Your task to perform on an android device: change text size in settings app Image 0: 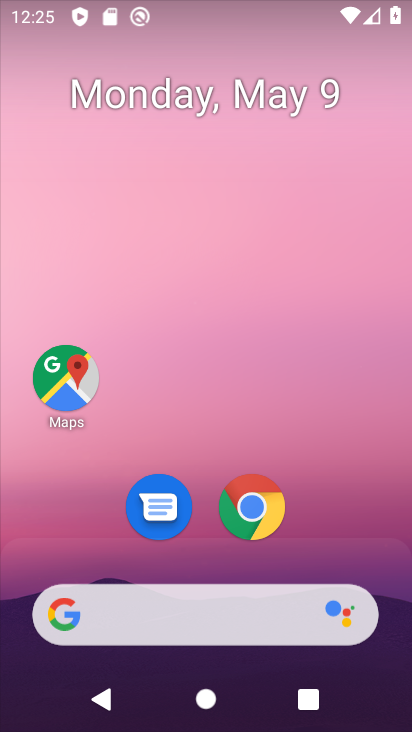
Step 0: click (179, 156)
Your task to perform on an android device: change text size in settings app Image 1: 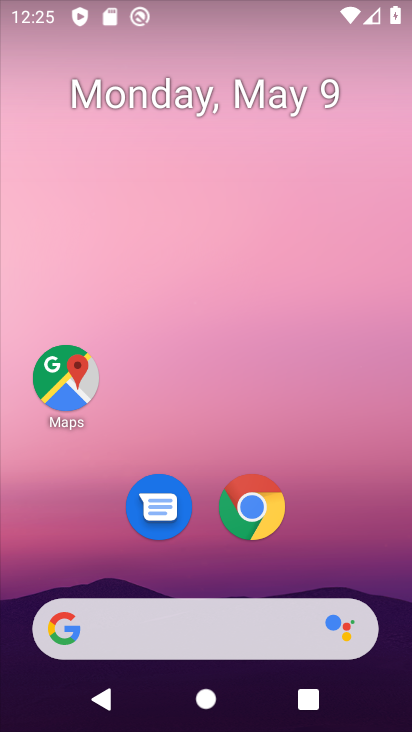
Step 1: drag from (220, 569) to (250, 83)
Your task to perform on an android device: change text size in settings app Image 2: 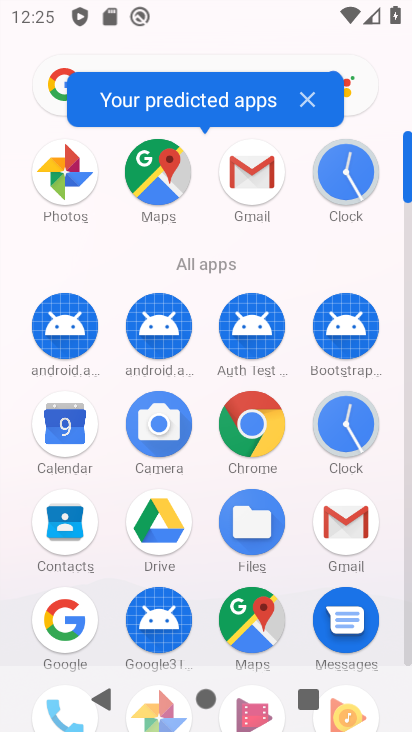
Step 2: drag from (130, 600) to (175, 125)
Your task to perform on an android device: change text size in settings app Image 3: 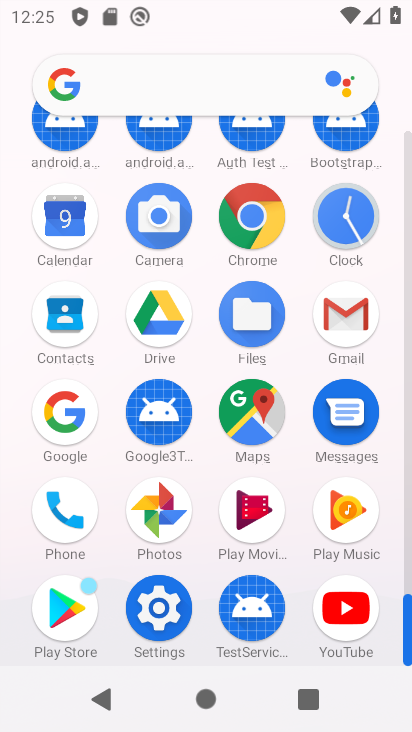
Step 3: click (156, 625)
Your task to perform on an android device: change text size in settings app Image 4: 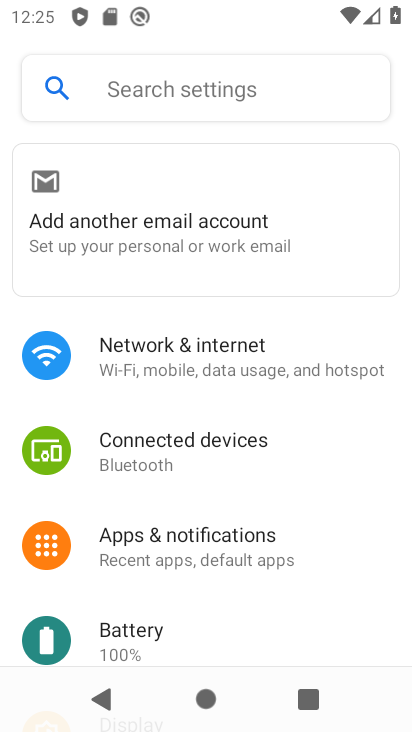
Step 4: drag from (137, 662) to (199, 294)
Your task to perform on an android device: change text size in settings app Image 5: 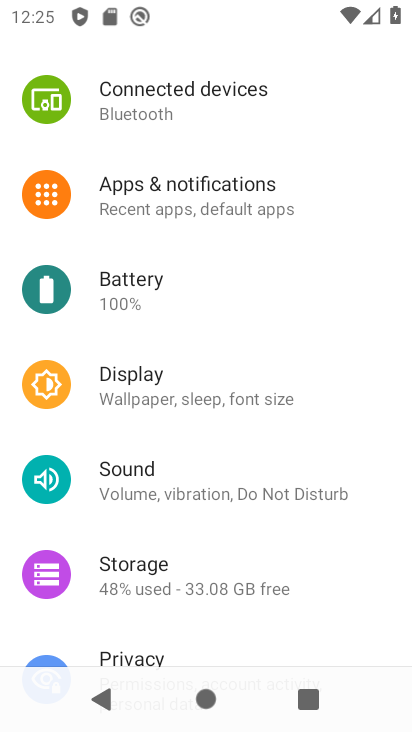
Step 5: drag from (138, 640) to (180, 289)
Your task to perform on an android device: change text size in settings app Image 6: 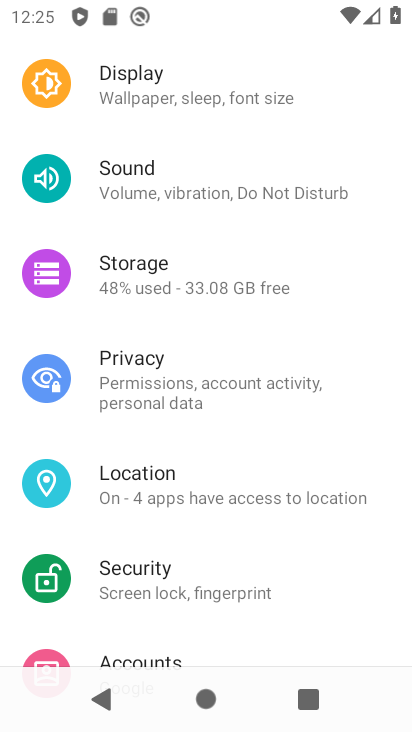
Step 6: drag from (158, 631) to (150, 341)
Your task to perform on an android device: change text size in settings app Image 7: 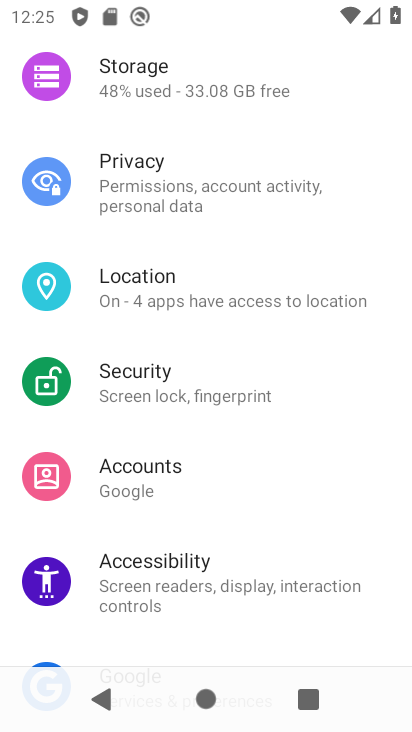
Step 7: drag from (152, 611) to (170, 334)
Your task to perform on an android device: change text size in settings app Image 8: 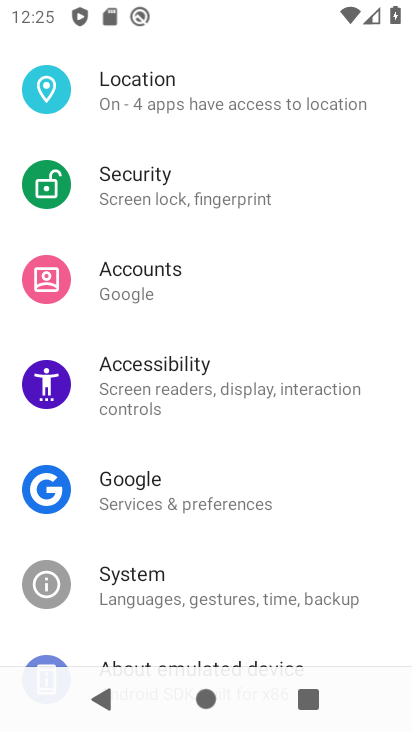
Step 8: click (139, 586)
Your task to perform on an android device: change text size in settings app Image 9: 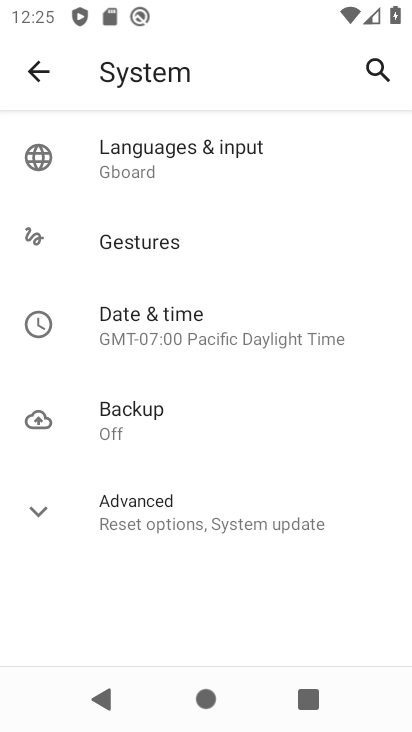
Step 9: click (24, 71)
Your task to perform on an android device: change text size in settings app Image 10: 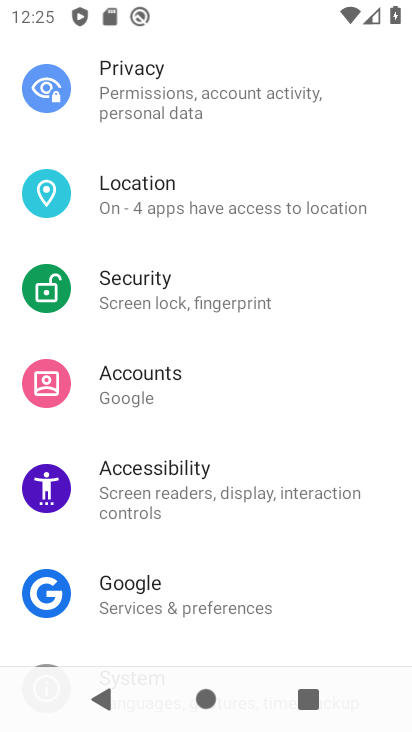
Step 10: click (152, 492)
Your task to perform on an android device: change text size in settings app Image 11: 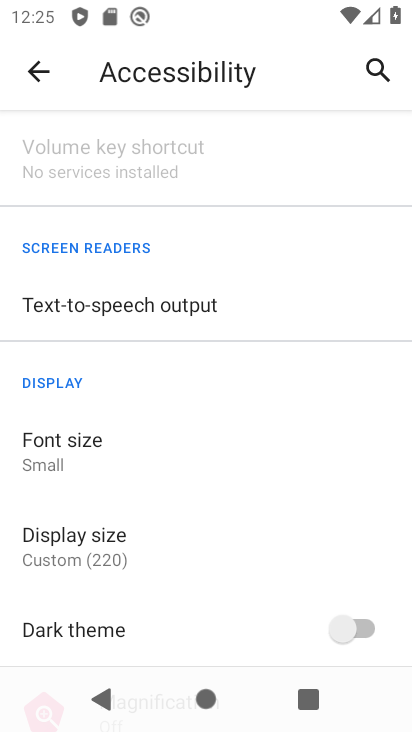
Step 11: click (68, 457)
Your task to perform on an android device: change text size in settings app Image 12: 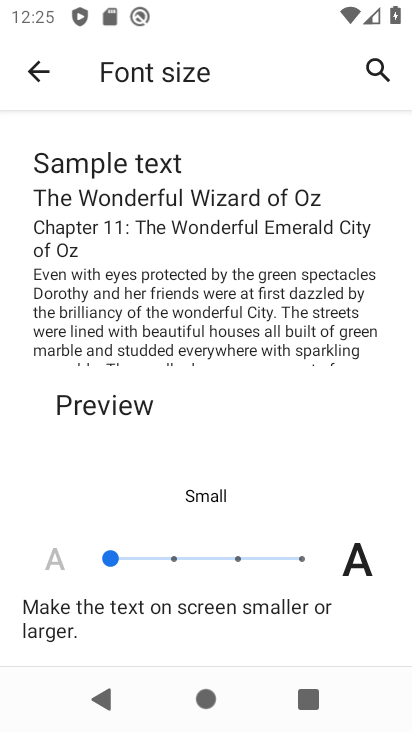
Step 12: click (174, 557)
Your task to perform on an android device: change text size in settings app Image 13: 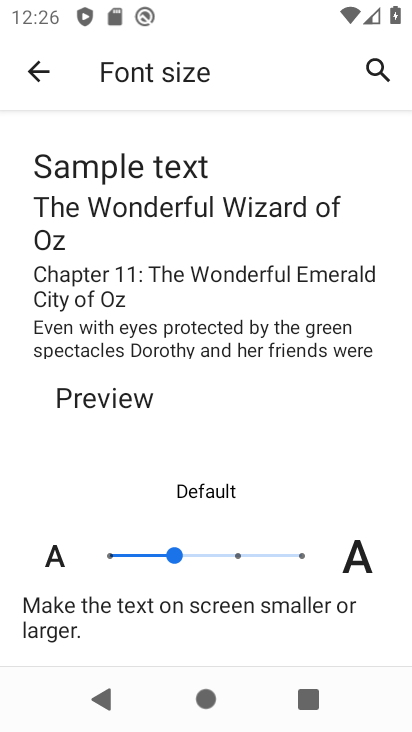
Step 13: task complete